Your task to perform on an android device: Open Android settings Image 0: 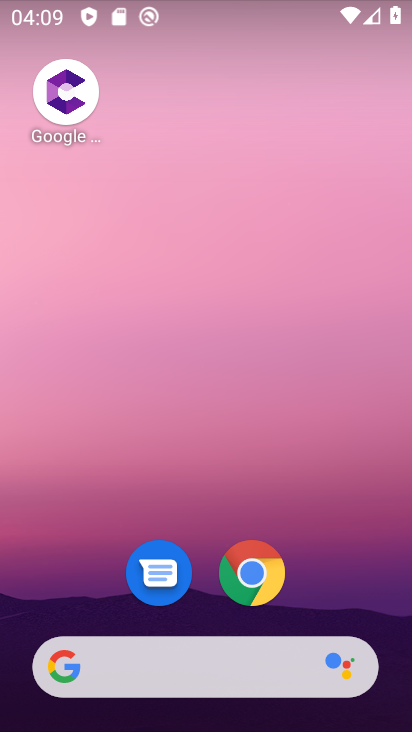
Step 0: click (264, 565)
Your task to perform on an android device: Open Android settings Image 1: 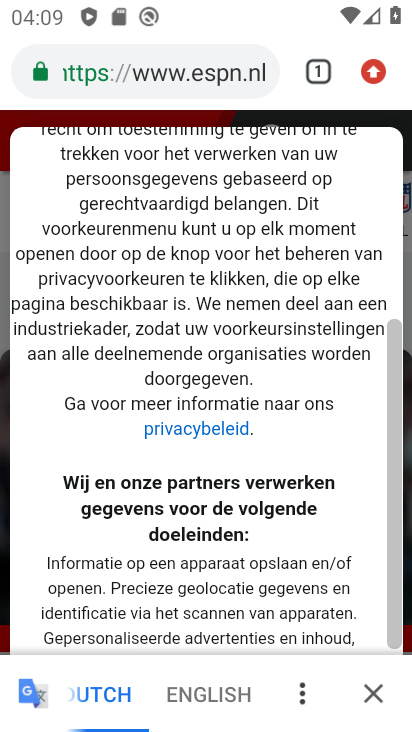
Step 1: press home button
Your task to perform on an android device: Open Android settings Image 2: 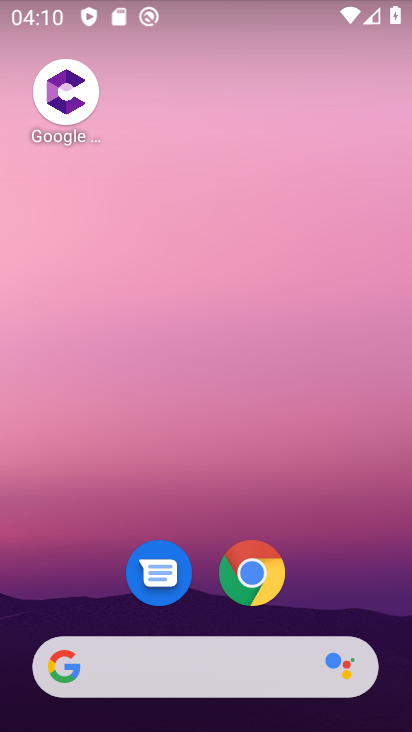
Step 2: drag from (315, 593) to (267, 24)
Your task to perform on an android device: Open Android settings Image 3: 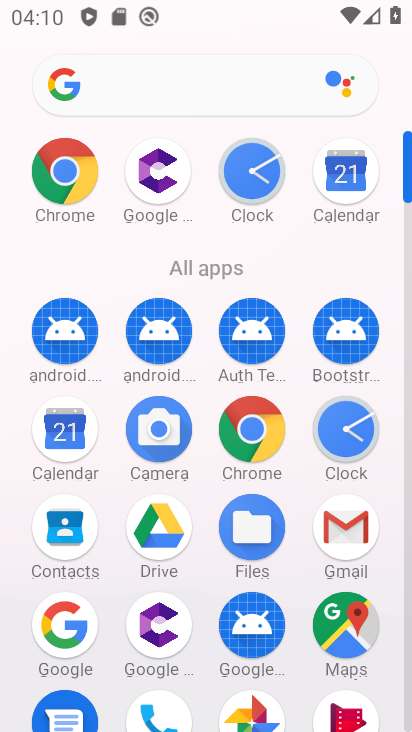
Step 3: drag from (206, 659) to (210, 240)
Your task to perform on an android device: Open Android settings Image 4: 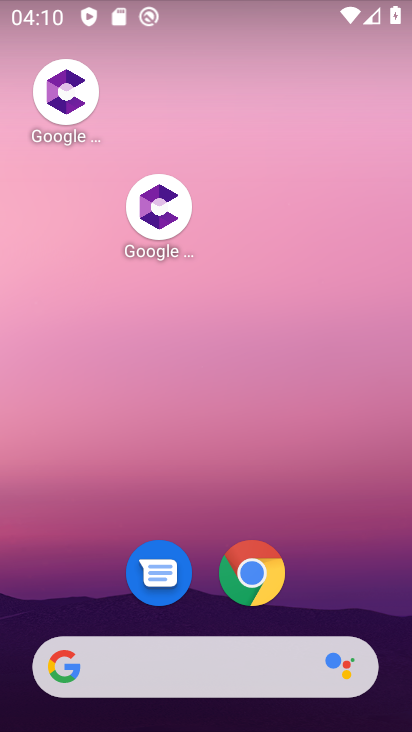
Step 4: drag from (323, 578) to (289, 92)
Your task to perform on an android device: Open Android settings Image 5: 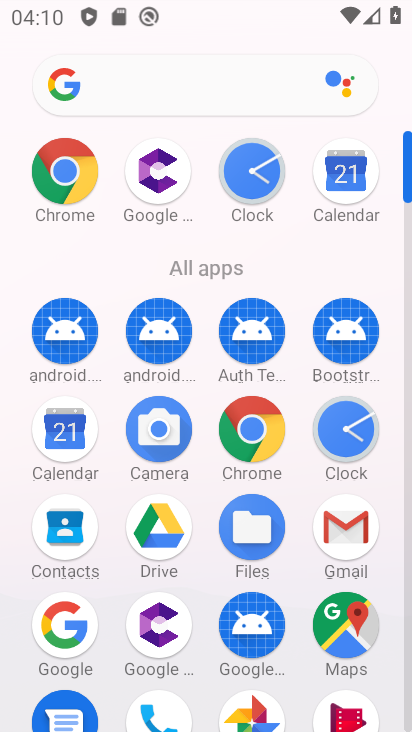
Step 5: drag from (189, 678) to (195, 366)
Your task to perform on an android device: Open Android settings Image 6: 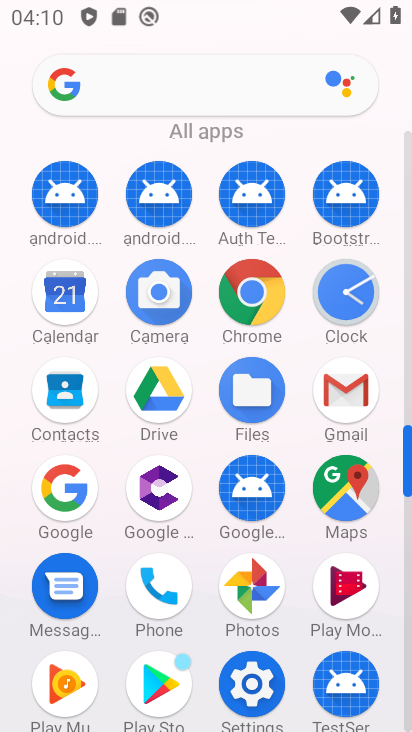
Step 6: click (258, 679)
Your task to perform on an android device: Open Android settings Image 7: 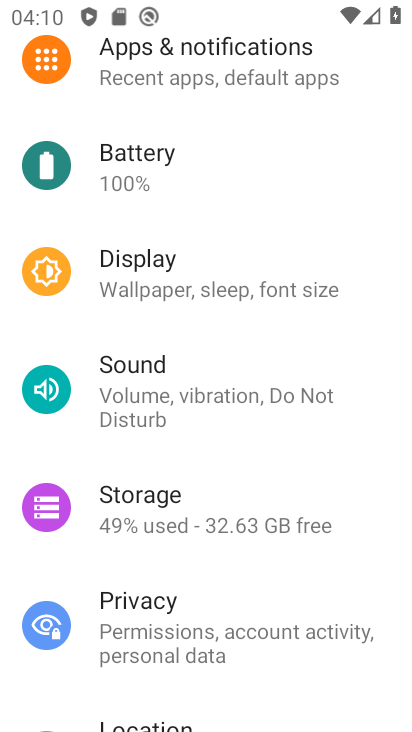
Step 7: drag from (213, 695) to (235, 87)
Your task to perform on an android device: Open Android settings Image 8: 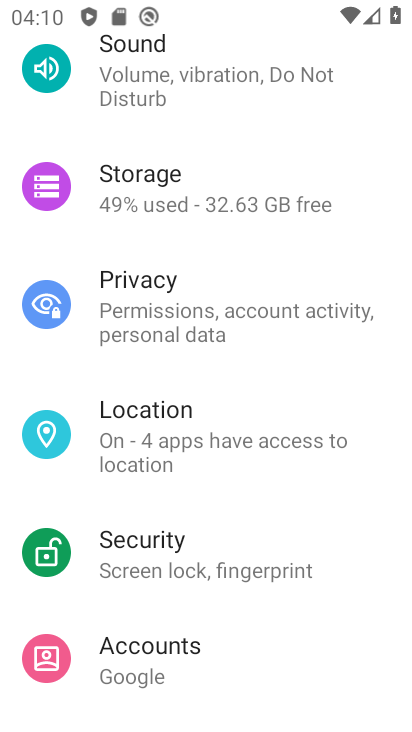
Step 8: drag from (279, 712) to (285, 91)
Your task to perform on an android device: Open Android settings Image 9: 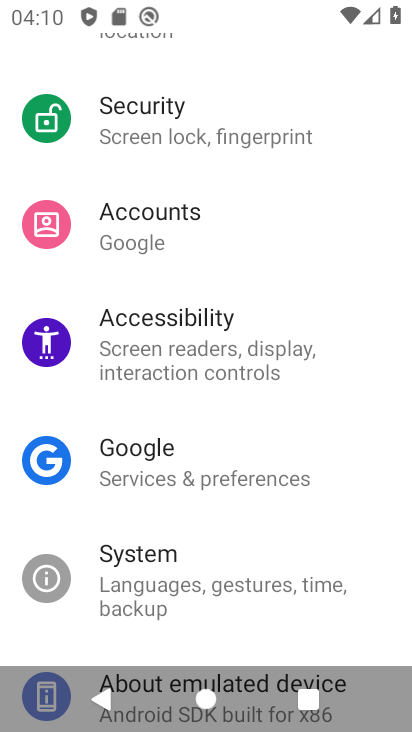
Step 9: drag from (196, 649) to (251, 113)
Your task to perform on an android device: Open Android settings Image 10: 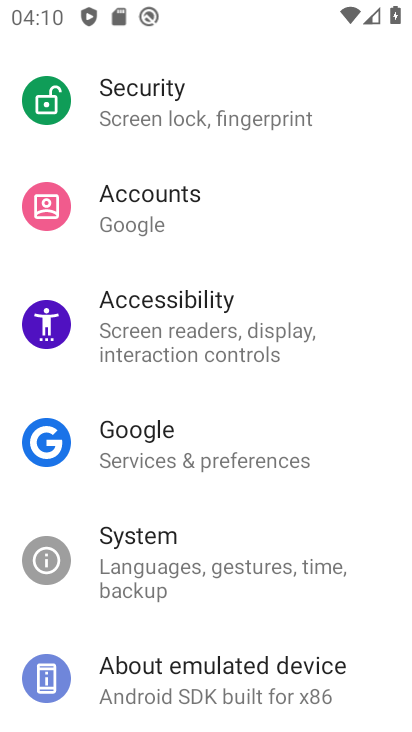
Step 10: click (218, 706)
Your task to perform on an android device: Open Android settings Image 11: 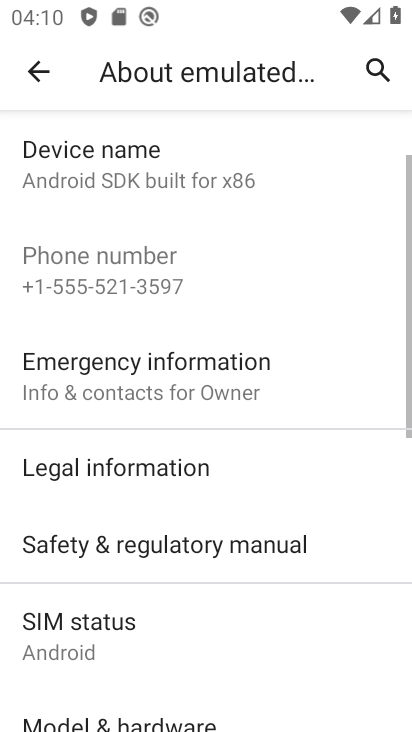
Step 11: drag from (217, 679) to (236, 260)
Your task to perform on an android device: Open Android settings Image 12: 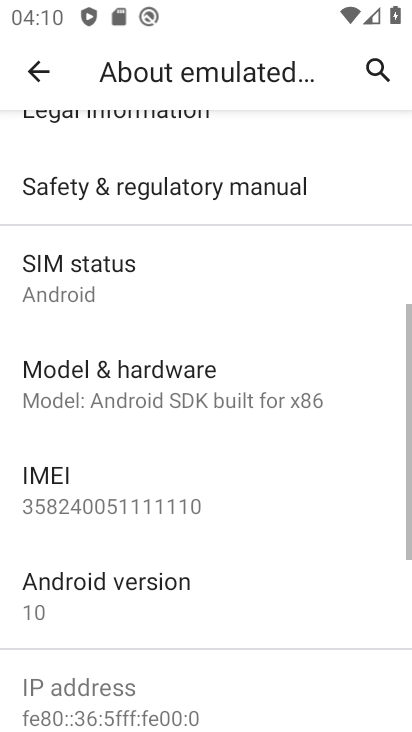
Step 12: click (101, 593)
Your task to perform on an android device: Open Android settings Image 13: 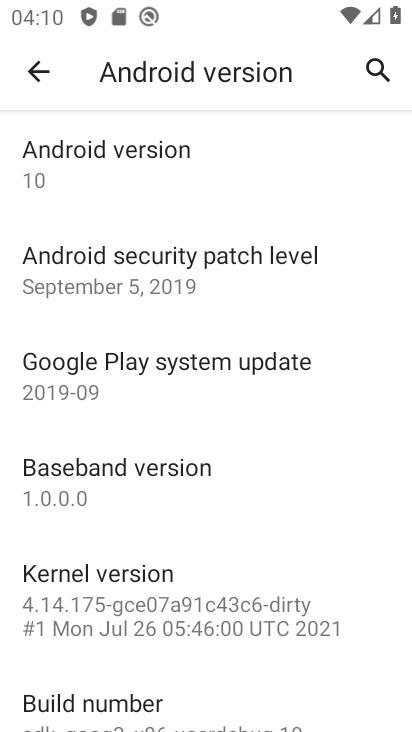
Step 13: task complete